Your task to perform on an android device: change the clock display to show seconds Image 0: 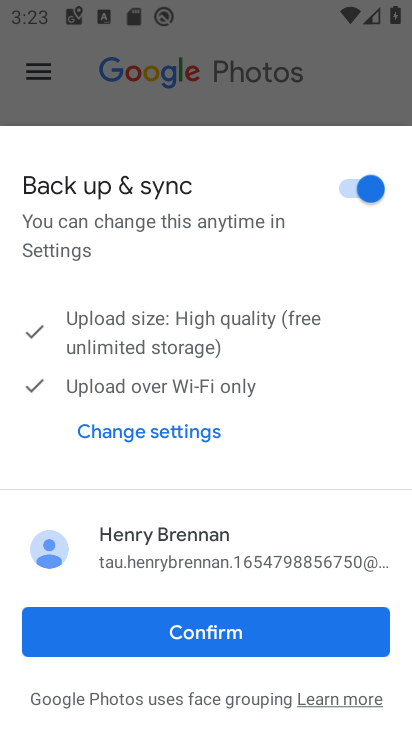
Step 0: press home button
Your task to perform on an android device: change the clock display to show seconds Image 1: 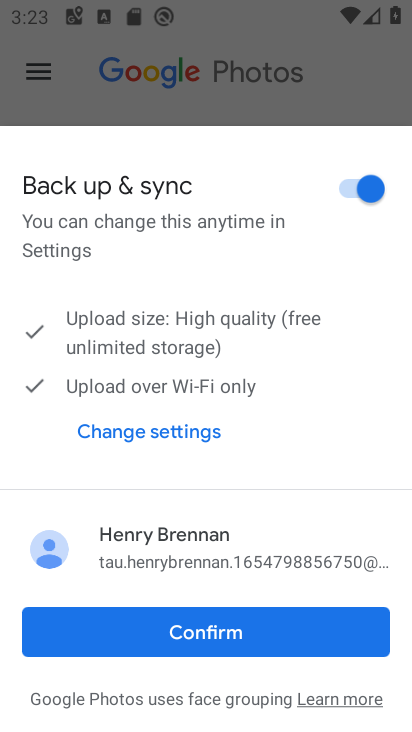
Step 1: press home button
Your task to perform on an android device: change the clock display to show seconds Image 2: 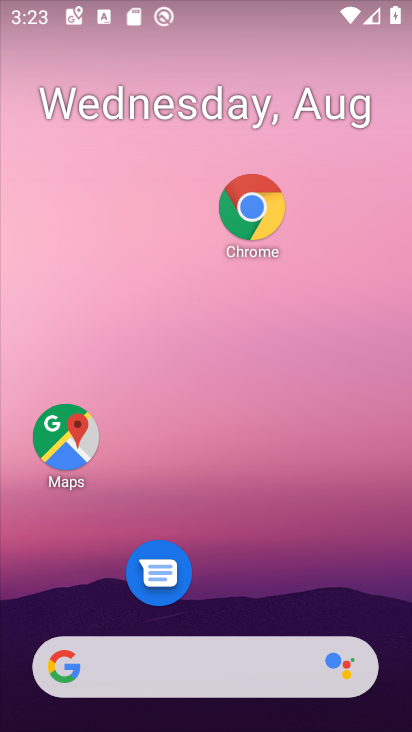
Step 2: drag from (268, 601) to (302, 0)
Your task to perform on an android device: change the clock display to show seconds Image 3: 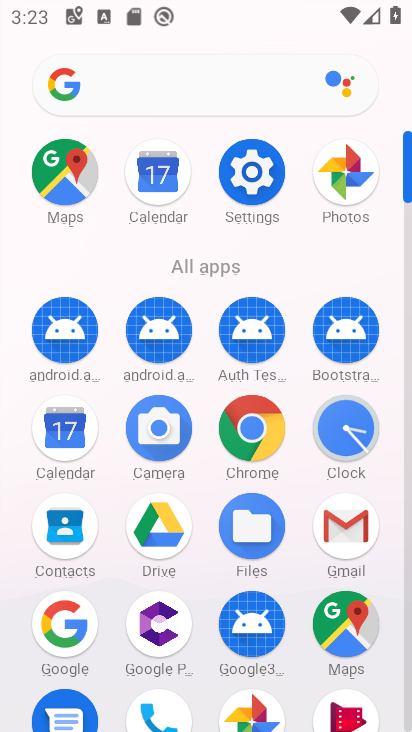
Step 3: click (345, 418)
Your task to perform on an android device: change the clock display to show seconds Image 4: 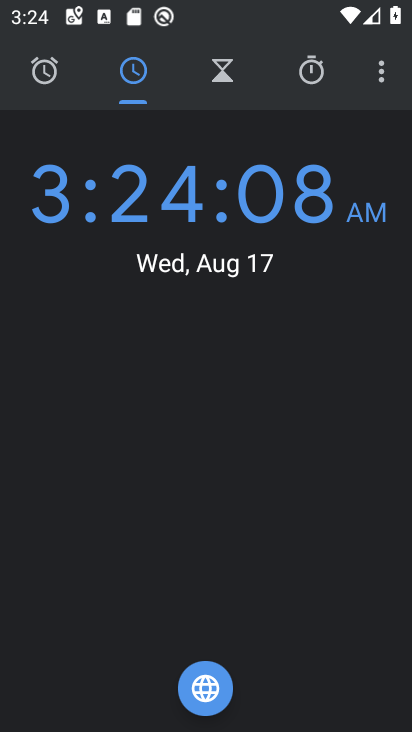
Step 4: task complete